Your task to perform on an android device: change your default location settings in chrome Image 0: 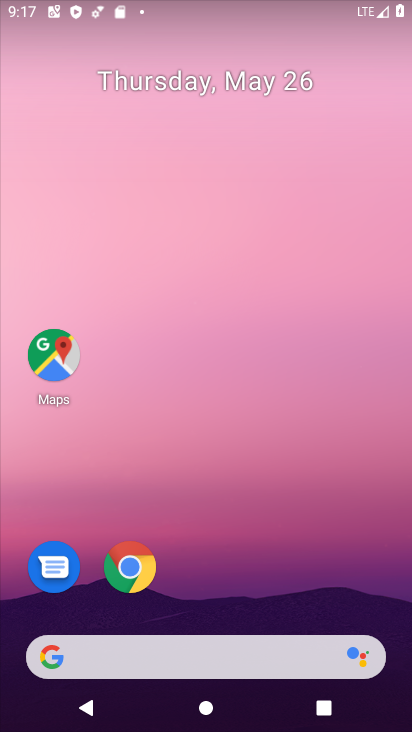
Step 0: click (117, 581)
Your task to perform on an android device: change your default location settings in chrome Image 1: 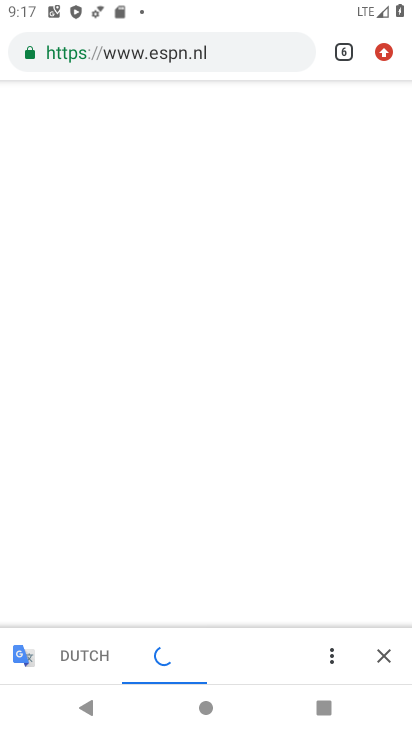
Step 1: click (397, 55)
Your task to perform on an android device: change your default location settings in chrome Image 2: 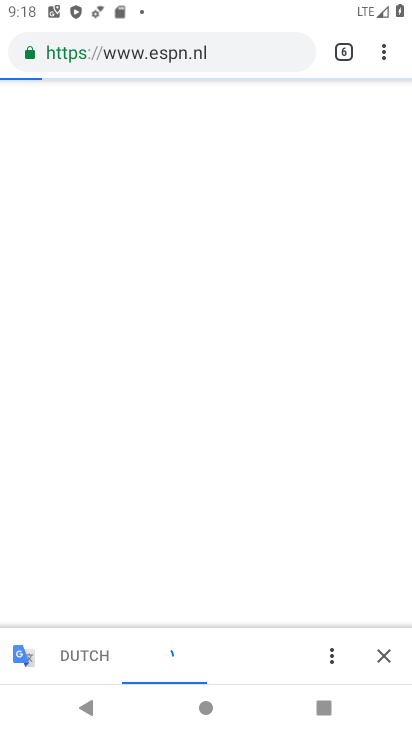
Step 2: click (386, 52)
Your task to perform on an android device: change your default location settings in chrome Image 3: 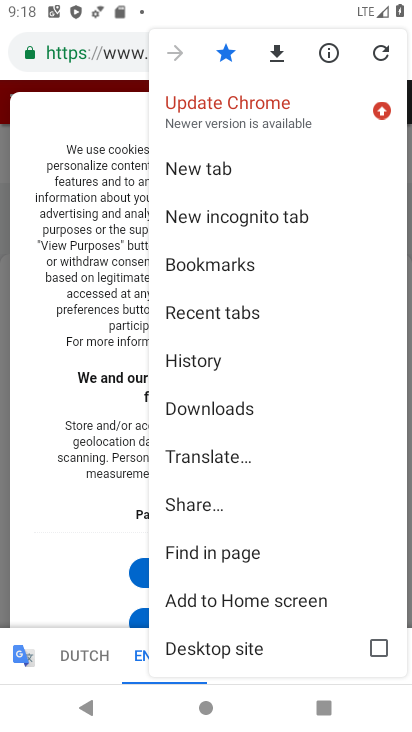
Step 3: drag from (298, 614) to (217, 75)
Your task to perform on an android device: change your default location settings in chrome Image 4: 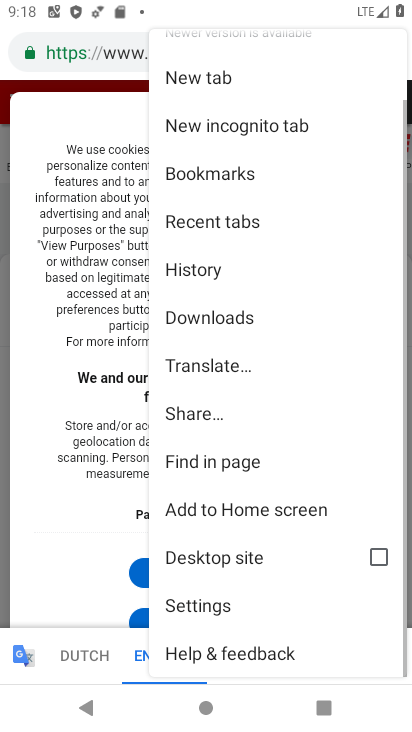
Step 4: click (243, 601)
Your task to perform on an android device: change your default location settings in chrome Image 5: 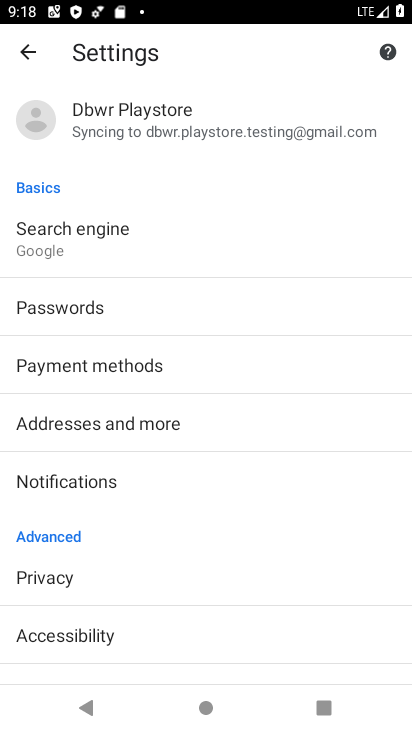
Step 5: drag from (227, 595) to (156, 192)
Your task to perform on an android device: change your default location settings in chrome Image 6: 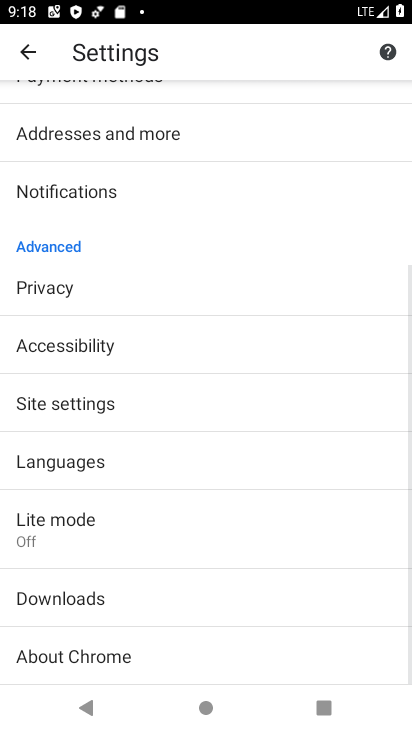
Step 6: click (144, 390)
Your task to perform on an android device: change your default location settings in chrome Image 7: 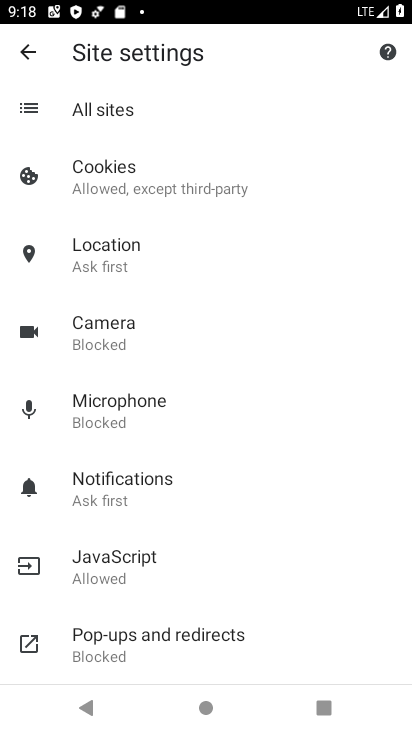
Step 7: drag from (299, 623) to (292, 5)
Your task to perform on an android device: change your default location settings in chrome Image 8: 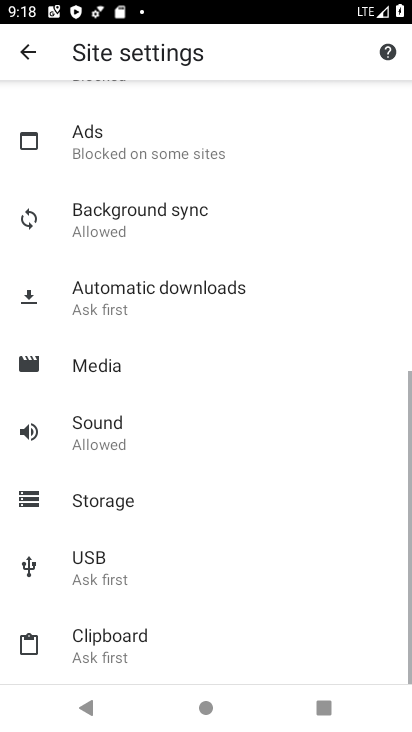
Step 8: drag from (332, 172) to (273, 726)
Your task to perform on an android device: change your default location settings in chrome Image 9: 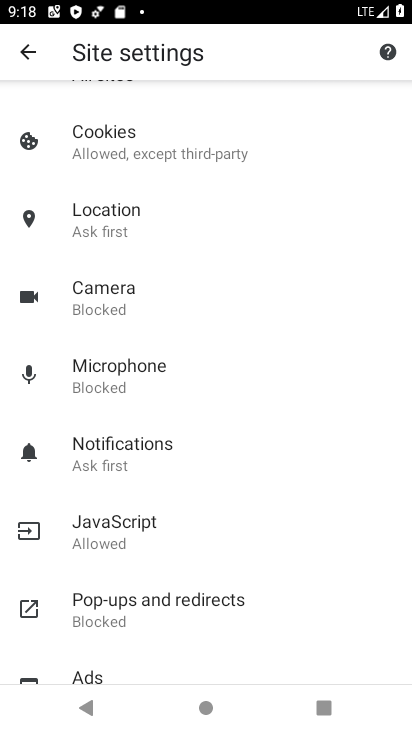
Step 9: click (136, 221)
Your task to perform on an android device: change your default location settings in chrome Image 10: 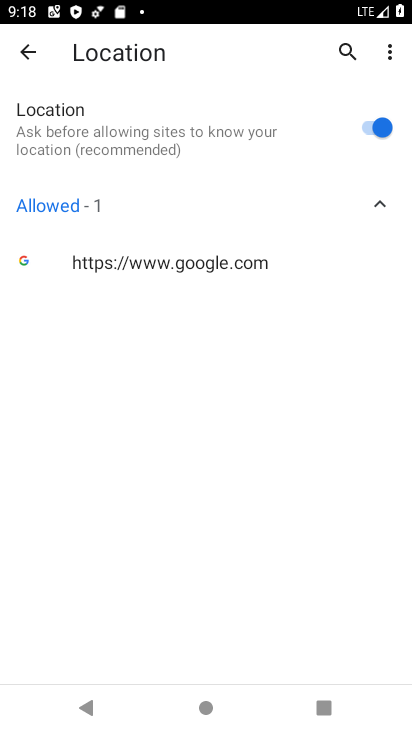
Step 10: click (387, 124)
Your task to perform on an android device: change your default location settings in chrome Image 11: 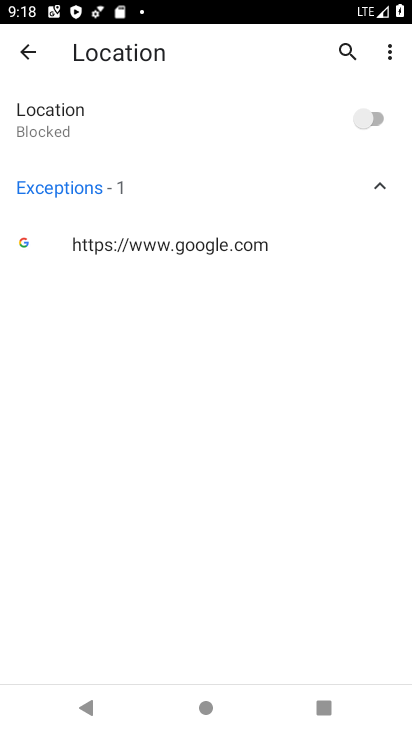
Step 11: task complete